Your task to perform on an android device: install app "McDonald's" Image 0: 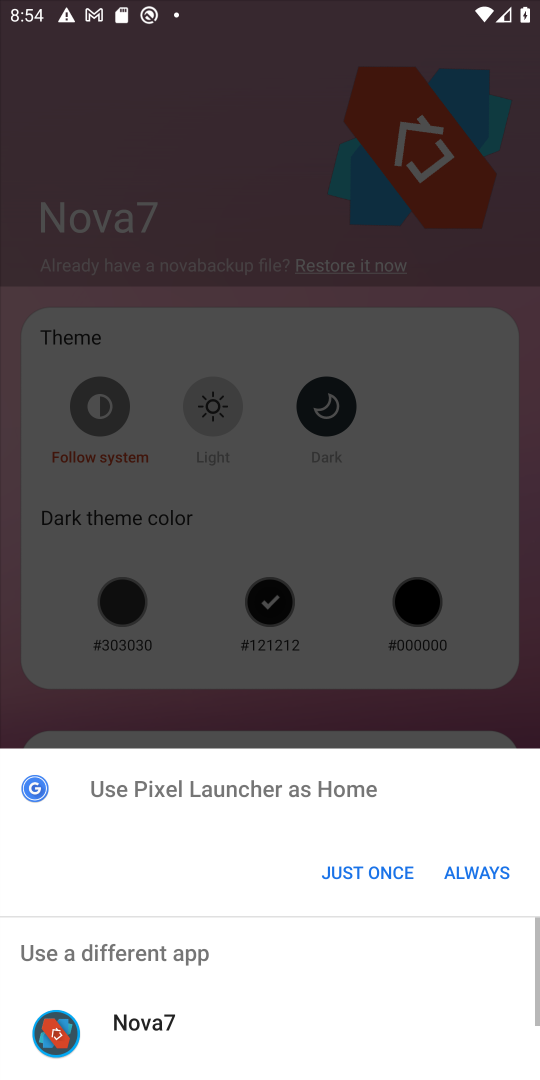
Step 0: press home button
Your task to perform on an android device: install app "McDonald's" Image 1: 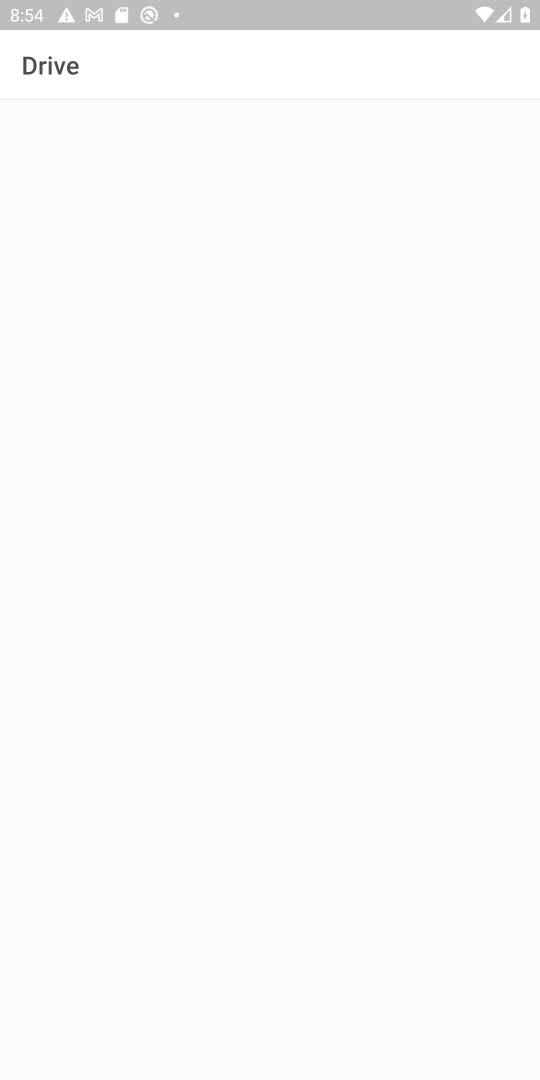
Step 1: press home button
Your task to perform on an android device: install app "McDonald's" Image 2: 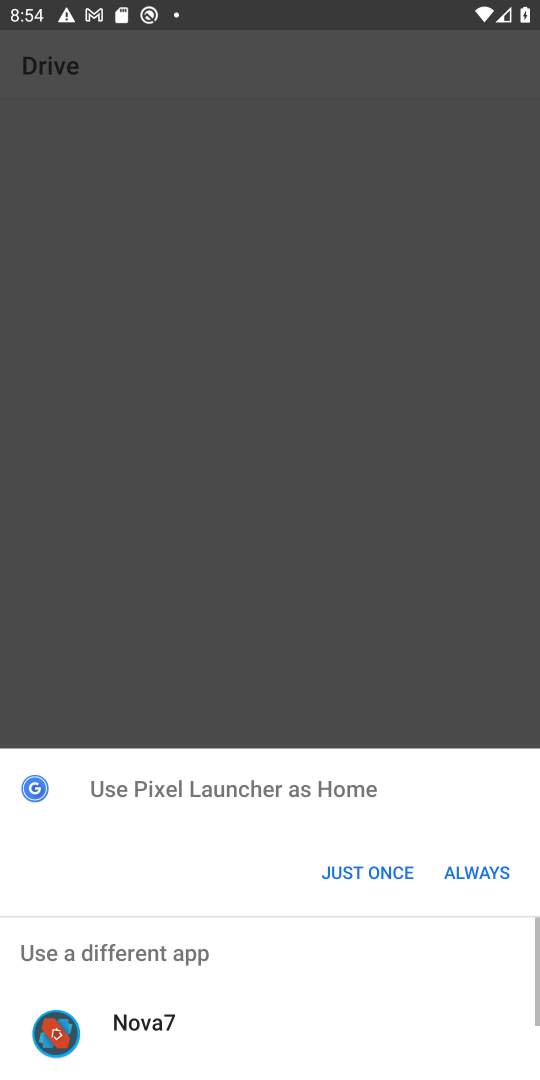
Step 2: click (132, 450)
Your task to perform on an android device: install app "McDonald's" Image 3: 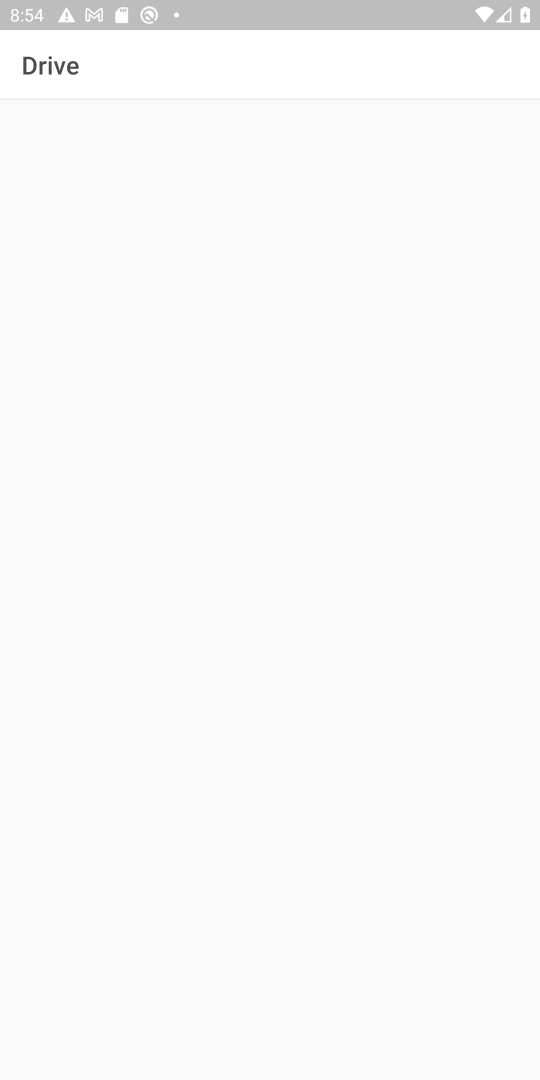
Step 3: press home button
Your task to perform on an android device: install app "McDonald's" Image 4: 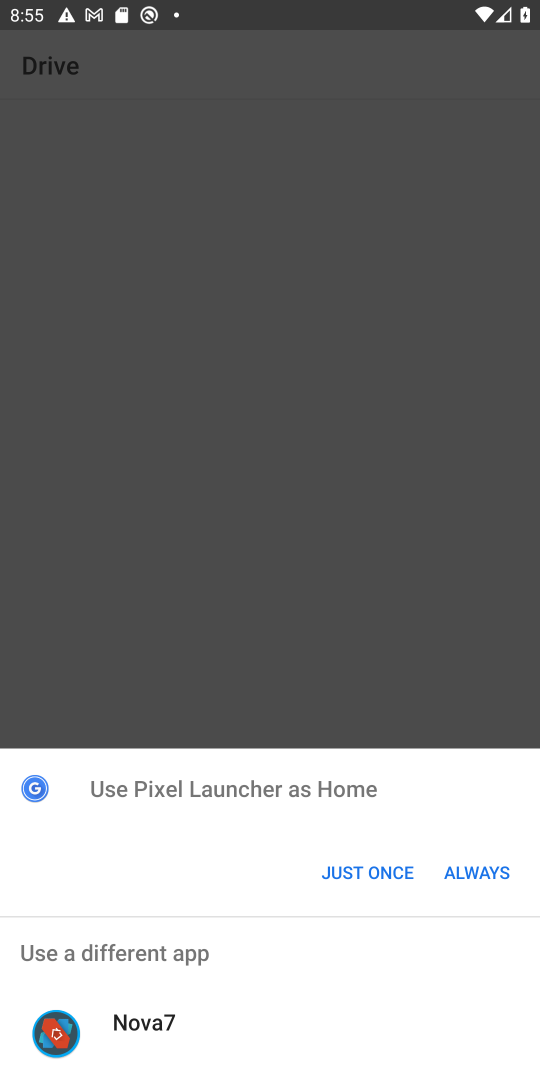
Step 4: click (346, 882)
Your task to perform on an android device: install app "McDonald's" Image 5: 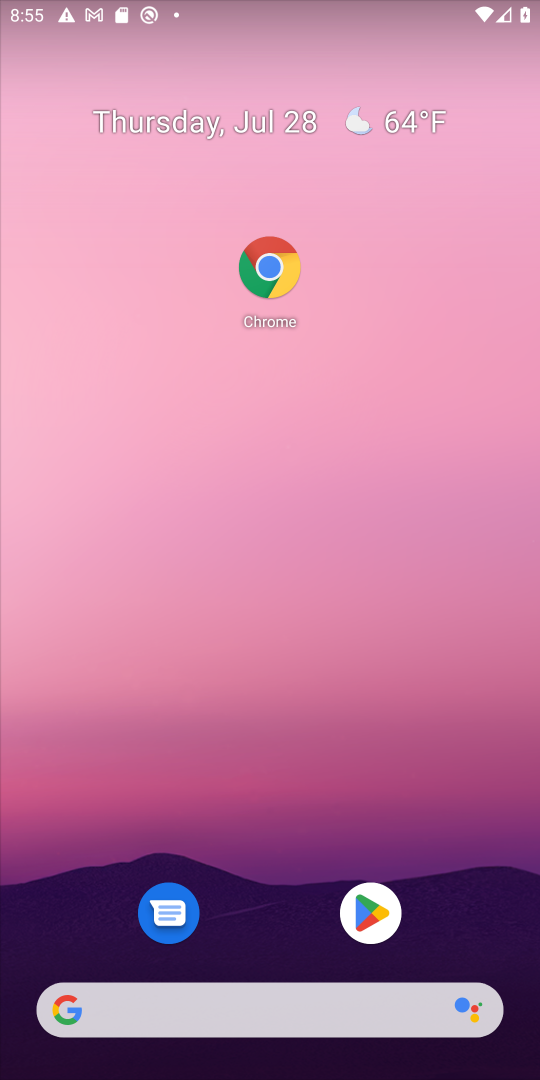
Step 5: click (386, 905)
Your task to perform on an android device: install app "McDonald's" Image 6: 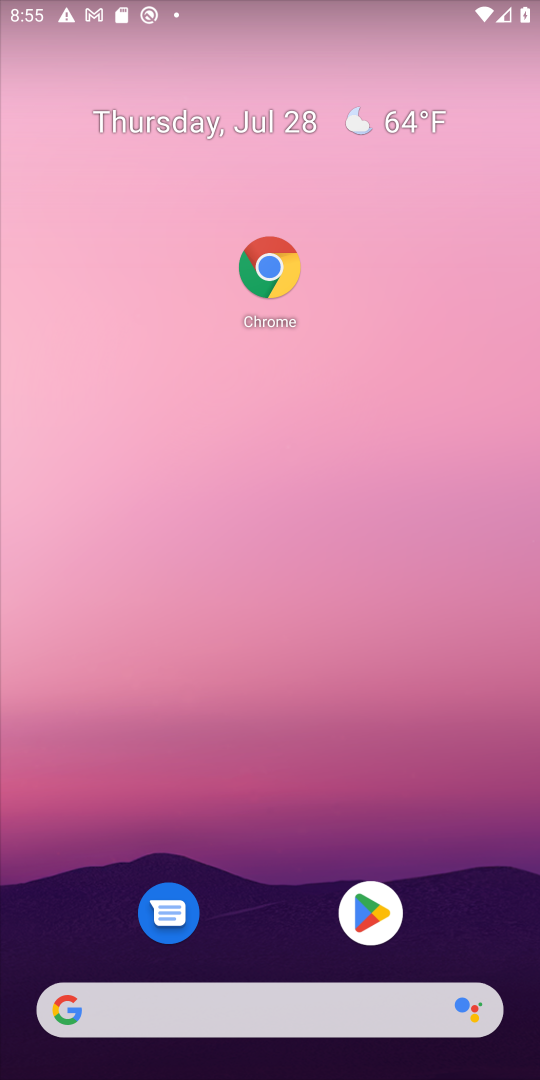
Step 6: click (380, 900)
Your task to perform on an android device: install app "McDonald's" Image 7: 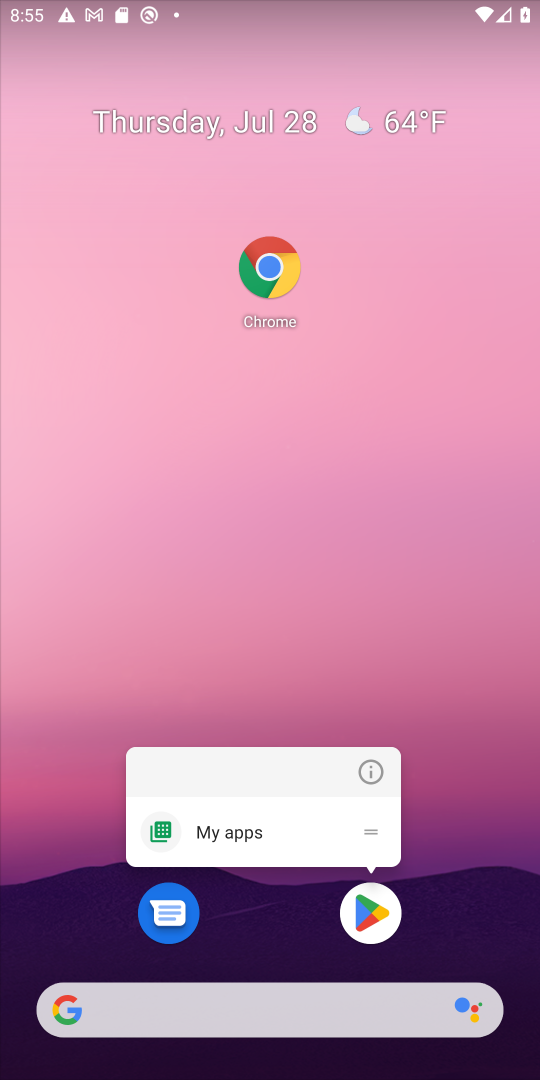
Step 7: click (382, 906)
Your task to perform on an android device: install app "McDonald's" Image 8: 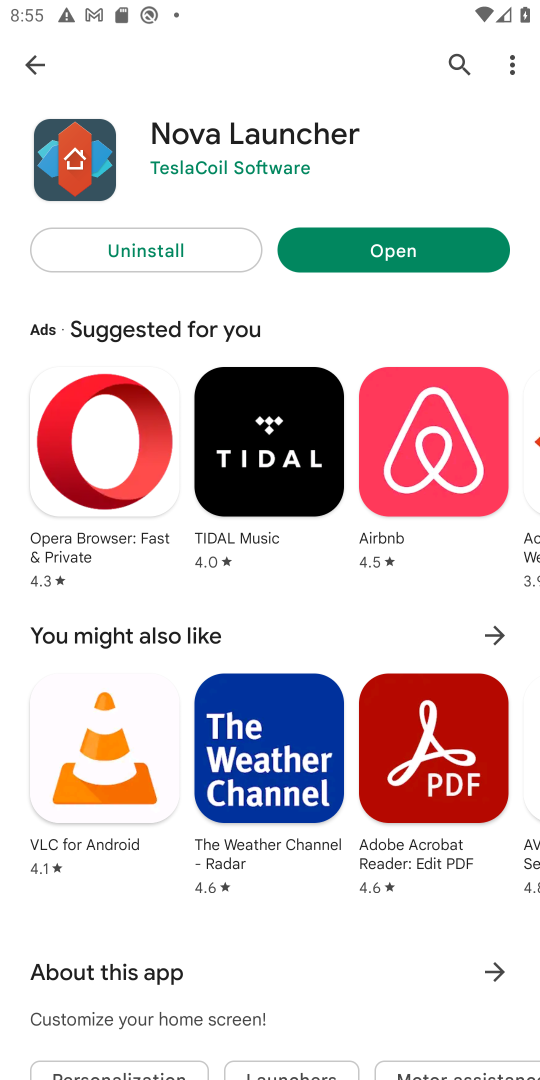
Step 8: click (444, 61)
Your task to perform on an android device: install app "McDonald's" Image 9: 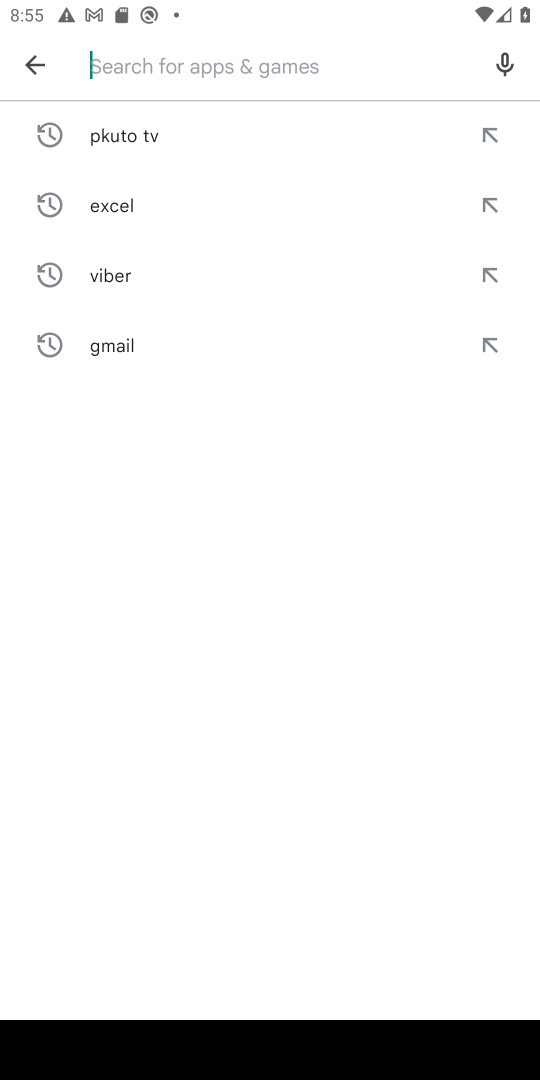
Step 9: type "mc"
Your task to perform on an android device: install app "McDonald's" Image 10: 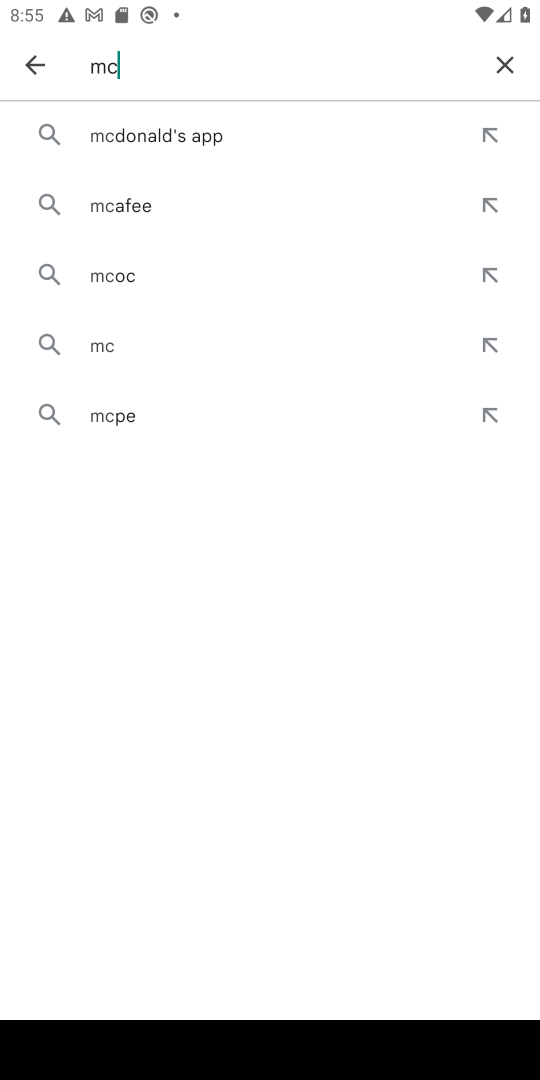
Step 10: click (161, 142)
Your task to perform on an android device: install app "McDonald's" Image 11: 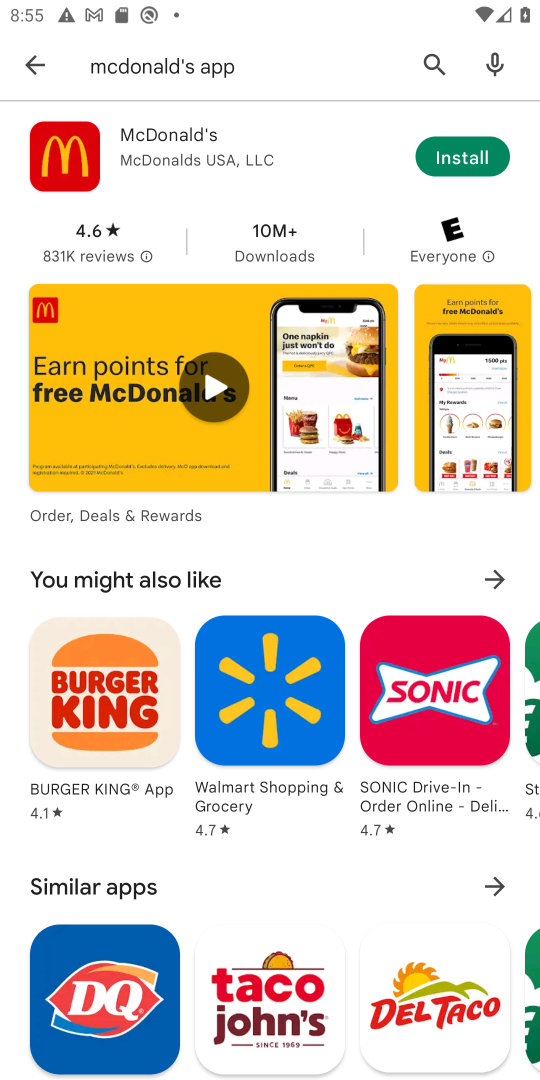
Step 11: click (436, 165)
Your task to perform on an android device: install app "McDonald's" Image 12: 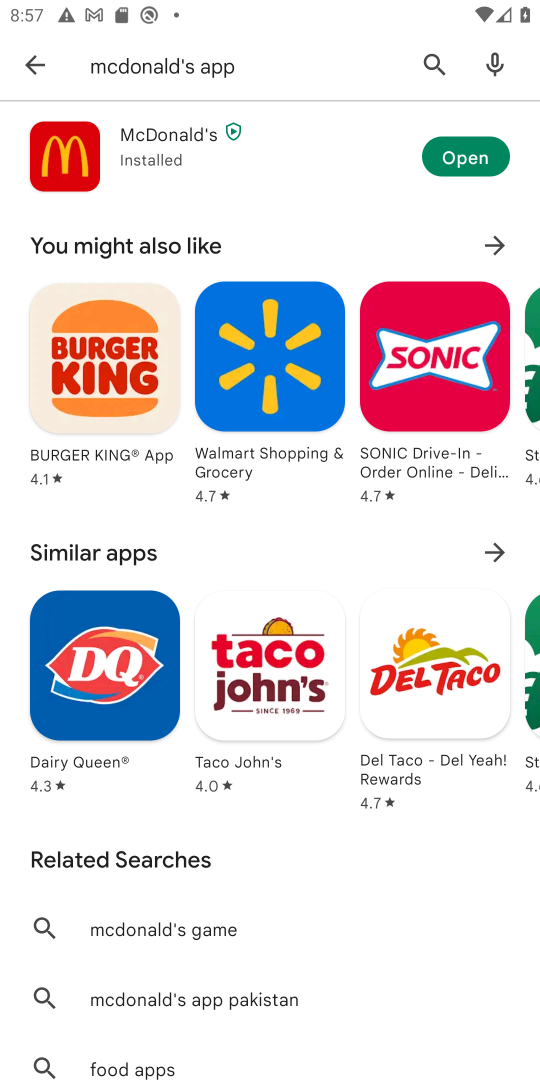
Step 12: task complete